Your task to perform on an android device: Go to Reddit.com Image 0: 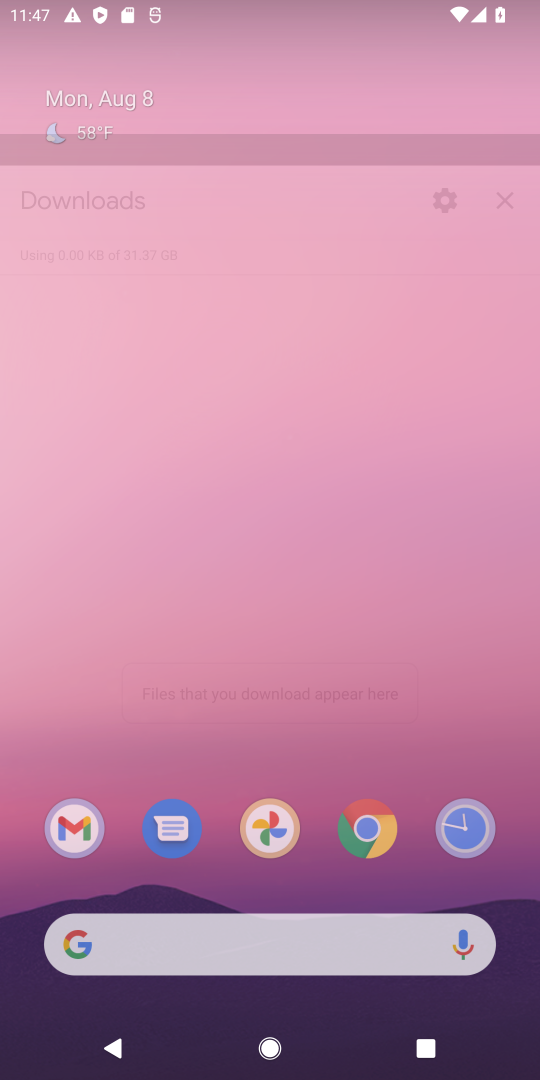
Step 0: press home button
Your task to perform on an android device: Go to Reddit.com Image 1: 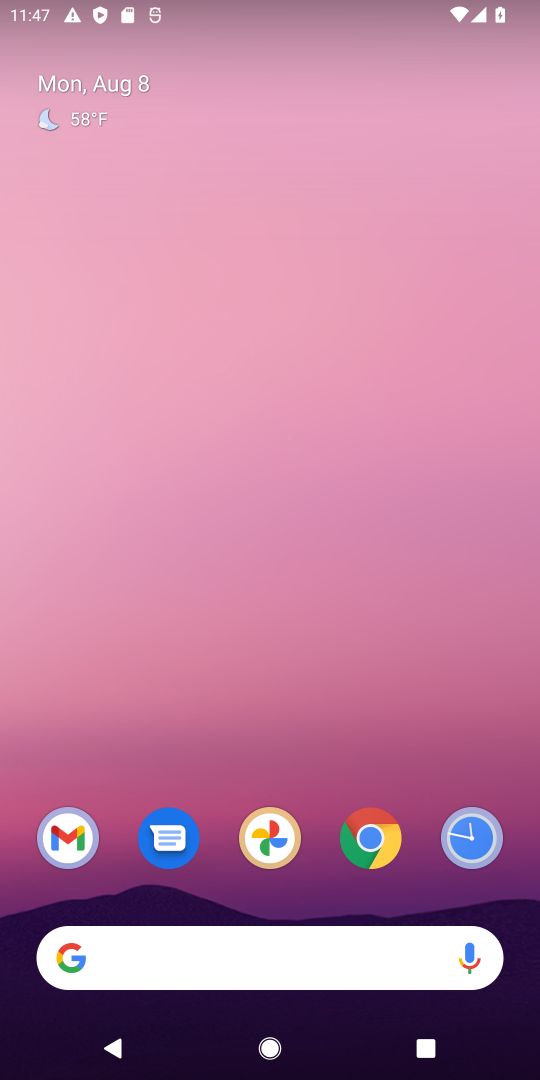
Step 1: click (70, 958)
Your task to perform on an android device: Go to Reddit.com Image 2: 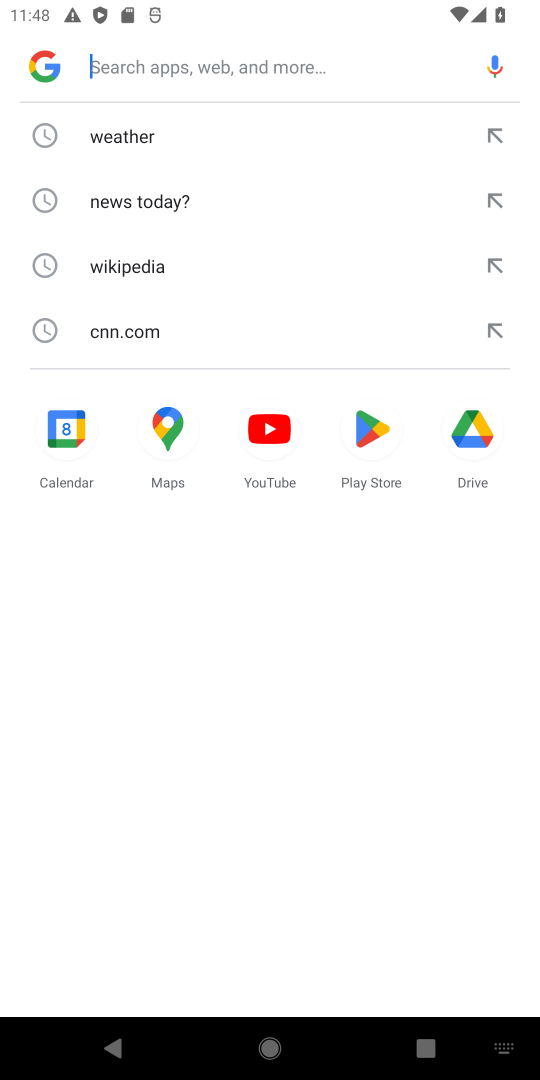
Step 2: type "Reddit.com"
Your task to perform on an android device: Go to Reddit.com Image 3: 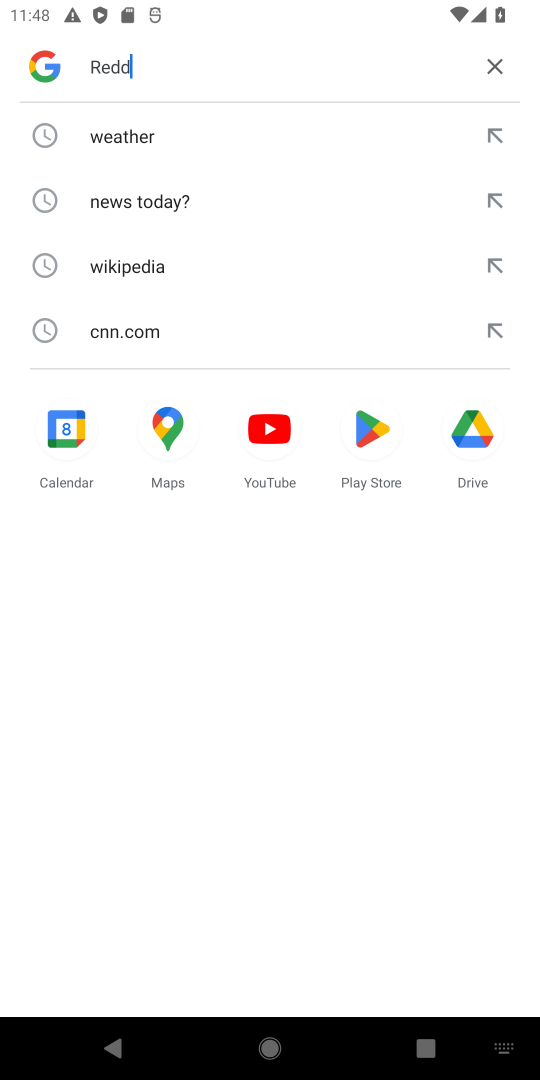
Step 3: press enter
Your task to perform on an android device: Go to Reddit.com Image 4: 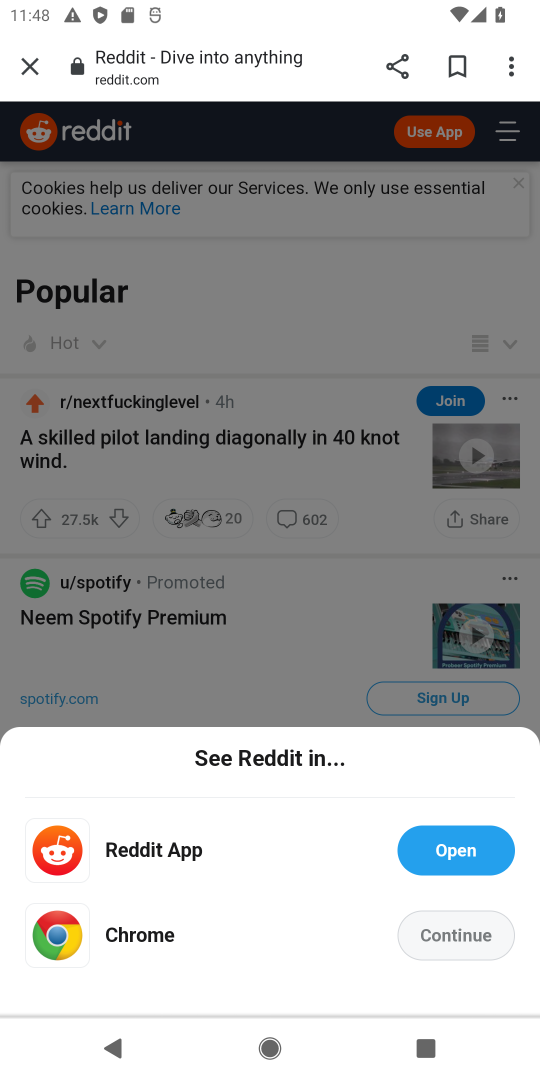
Step 4: task complete